Your task to perform on an android device: delete a single message in the gmail app Image 0: 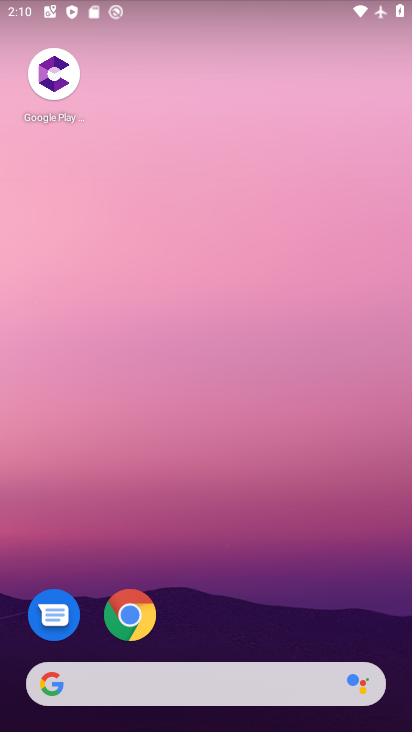
Step 0: drag from (286, 612) to (403, 67)
Your task to perform on an android device: delete a single message in the gmail app Image 1: 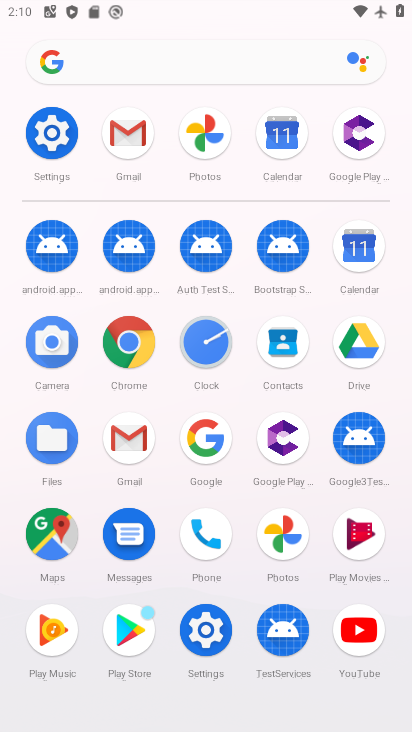
Step 1: click (129, 441)
Your task to perform on an android device: delete a single message in the gmail app Image 2: 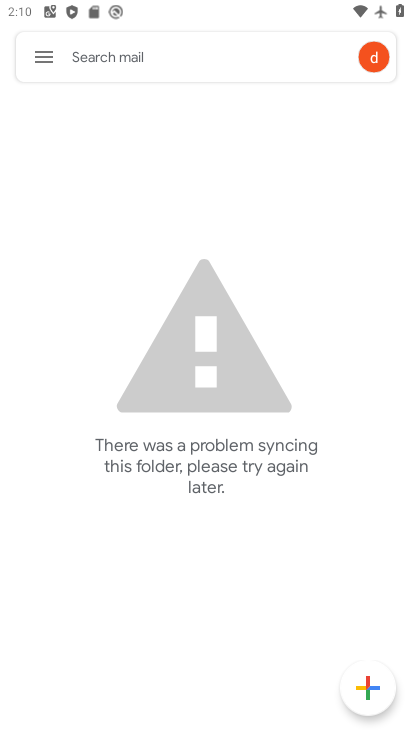
Step 2: click (36, 54)
Your task to perform on an android device: delete a single message in the gmail app Image 3: 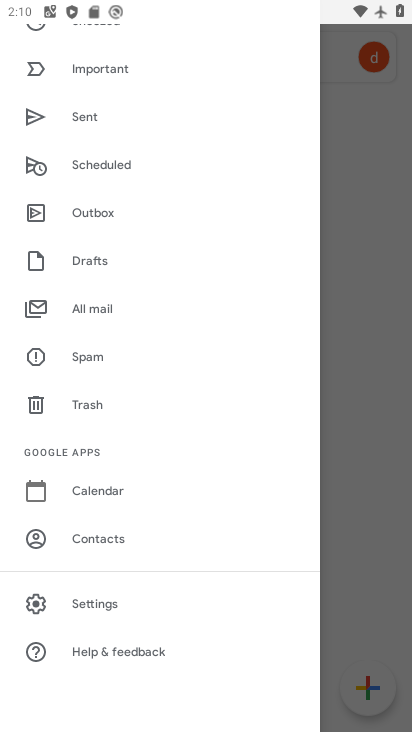
Step 3: click (93, 311)
Your task to perform on an android device: delete a single message in the gmail app Image 4: 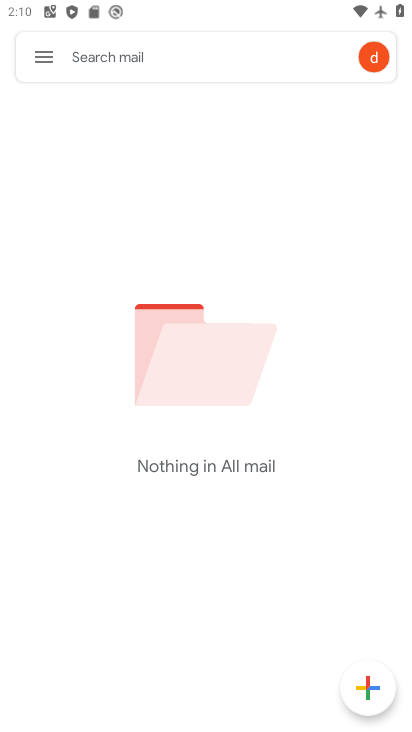
Step 4: task complete